Your task to perform on an android device: Show me productivity apps on the Play Store Image 0: 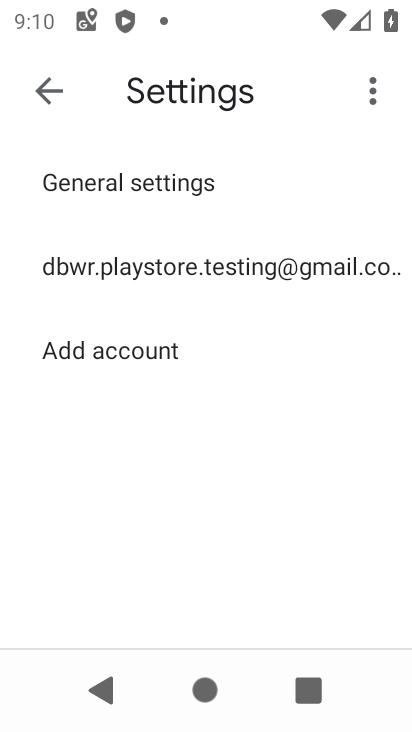
Step 0: press home button
Your task to perform on an android device: Show me productivity apps on the Play Store Image 1: 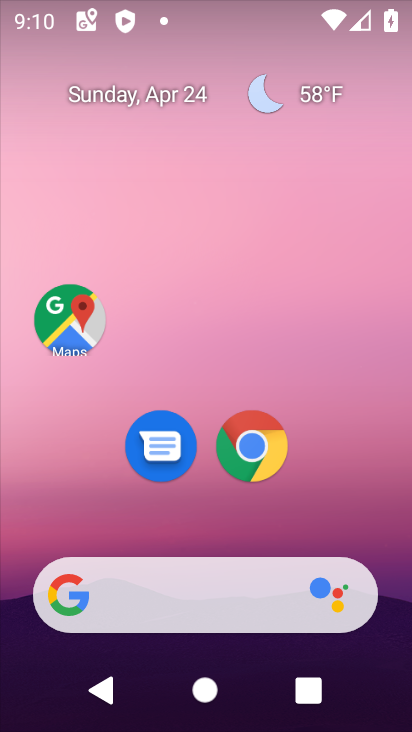
Step 1: drag from (155, 592) to (401, 76)
Your task to perform on an android device: Show me productivity apps on the Play Store Image 2: 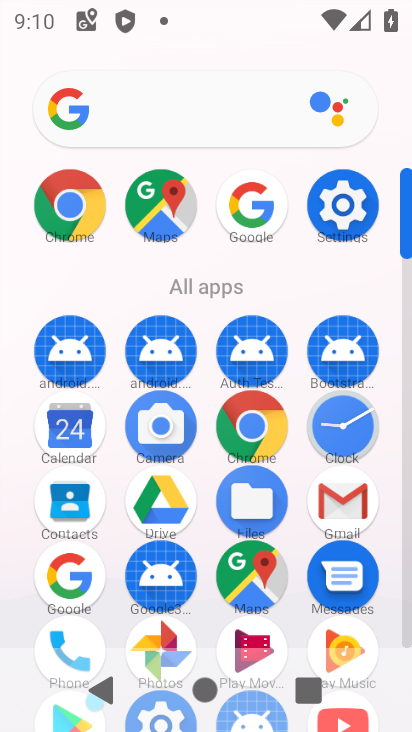
Step 2: drag from (102, 592) to (373, 155)
Your task to perform on an android device: Show me productivity apps on the Play Store Image 3: 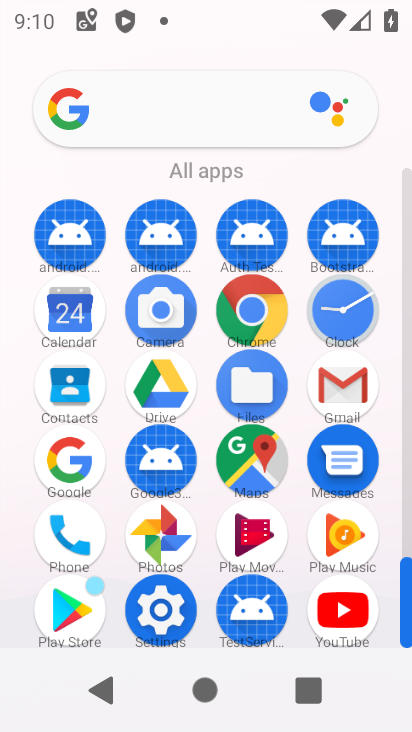
Step 3: click (56, 613)
Your task to perform on an android device: Show me productivity apps on the Play Store Image 4: 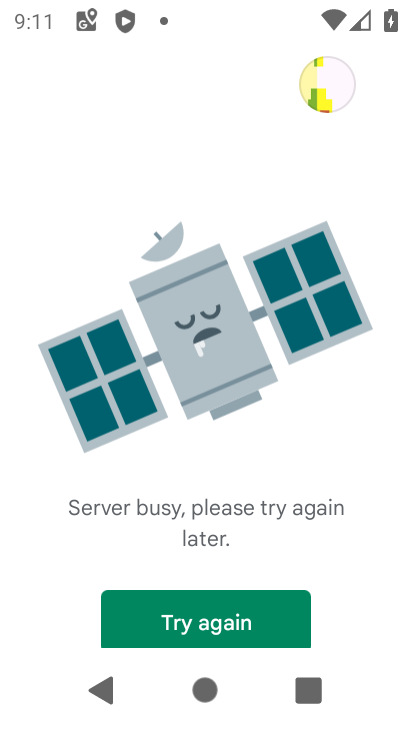
Step 4: click (182, 625)
Your task to perform on an android device: Show me productivity apps on the Play Store Image 5: 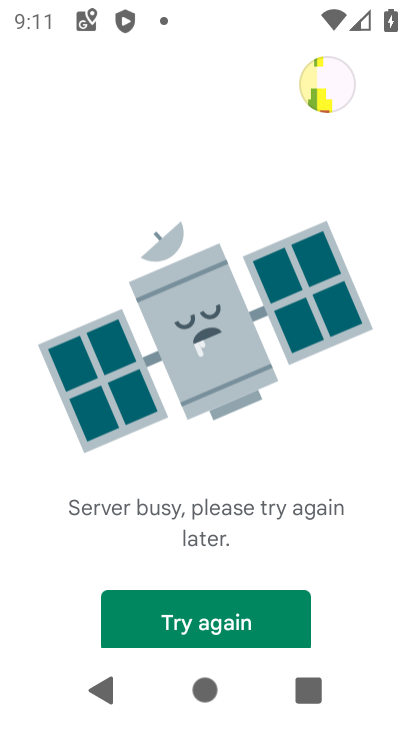
Step 5: task complete